Your task to perform on an android device: check android version Image 0: 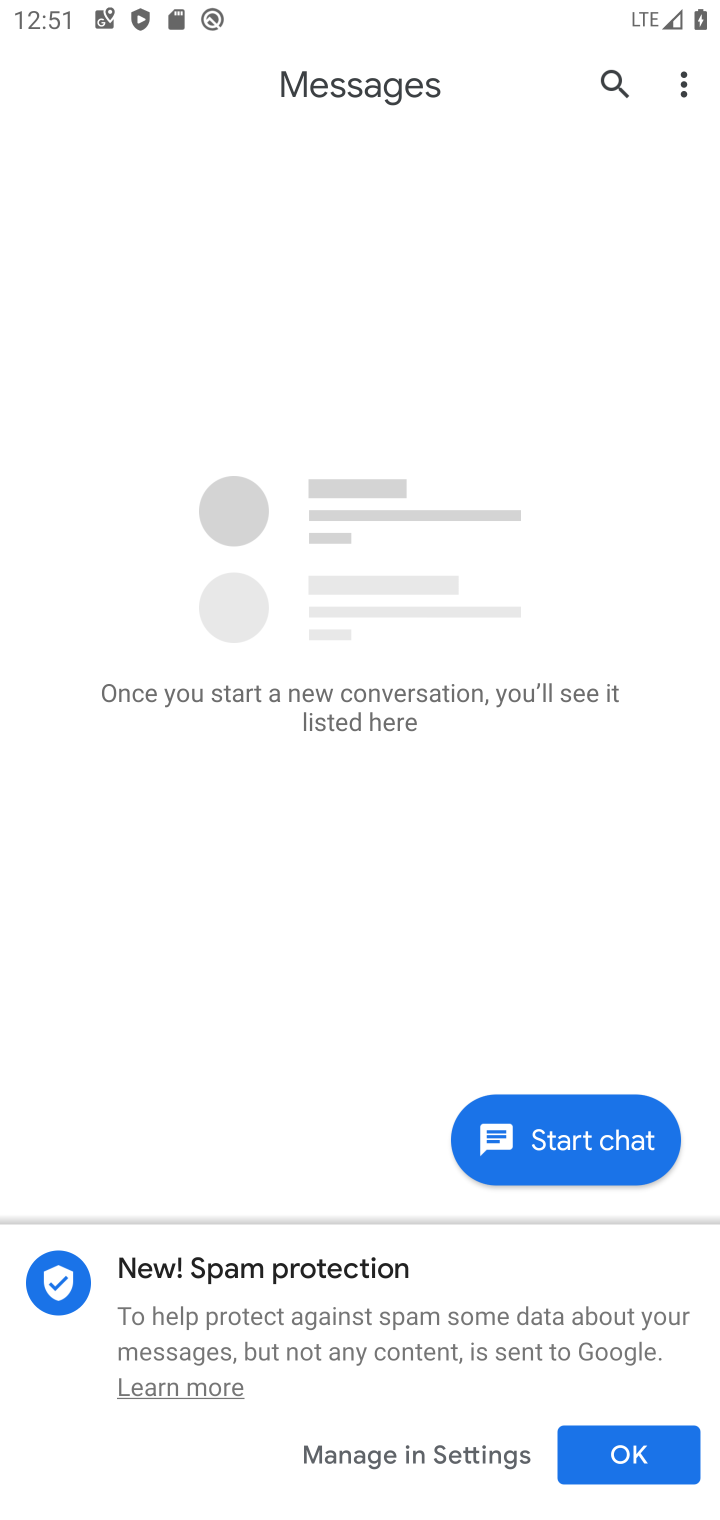
Step 0: press back button
Your task to perform on an android device: check android version Image 1: 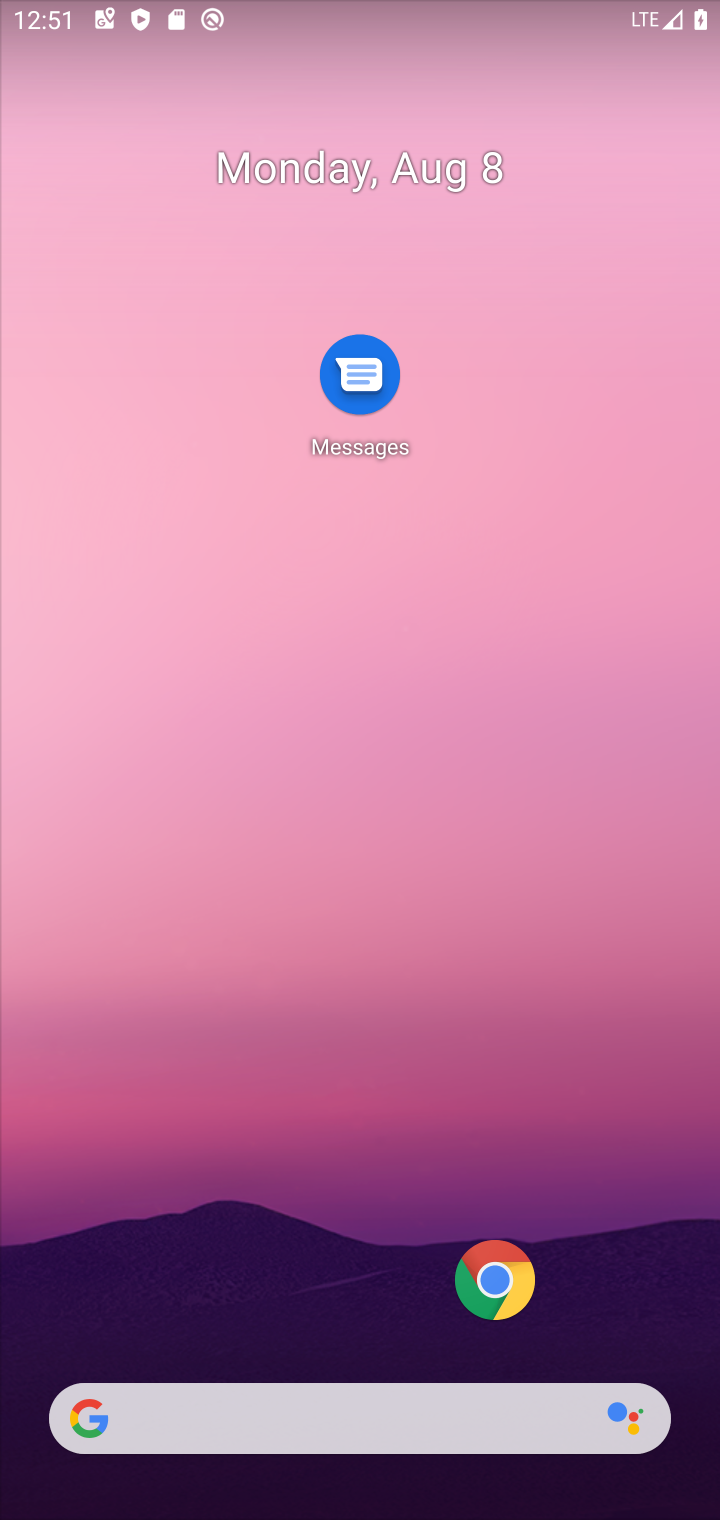
Step 1: drag from (280, 1224) to (381, 213)
Your task to perform on an android device: check android version Image 2: 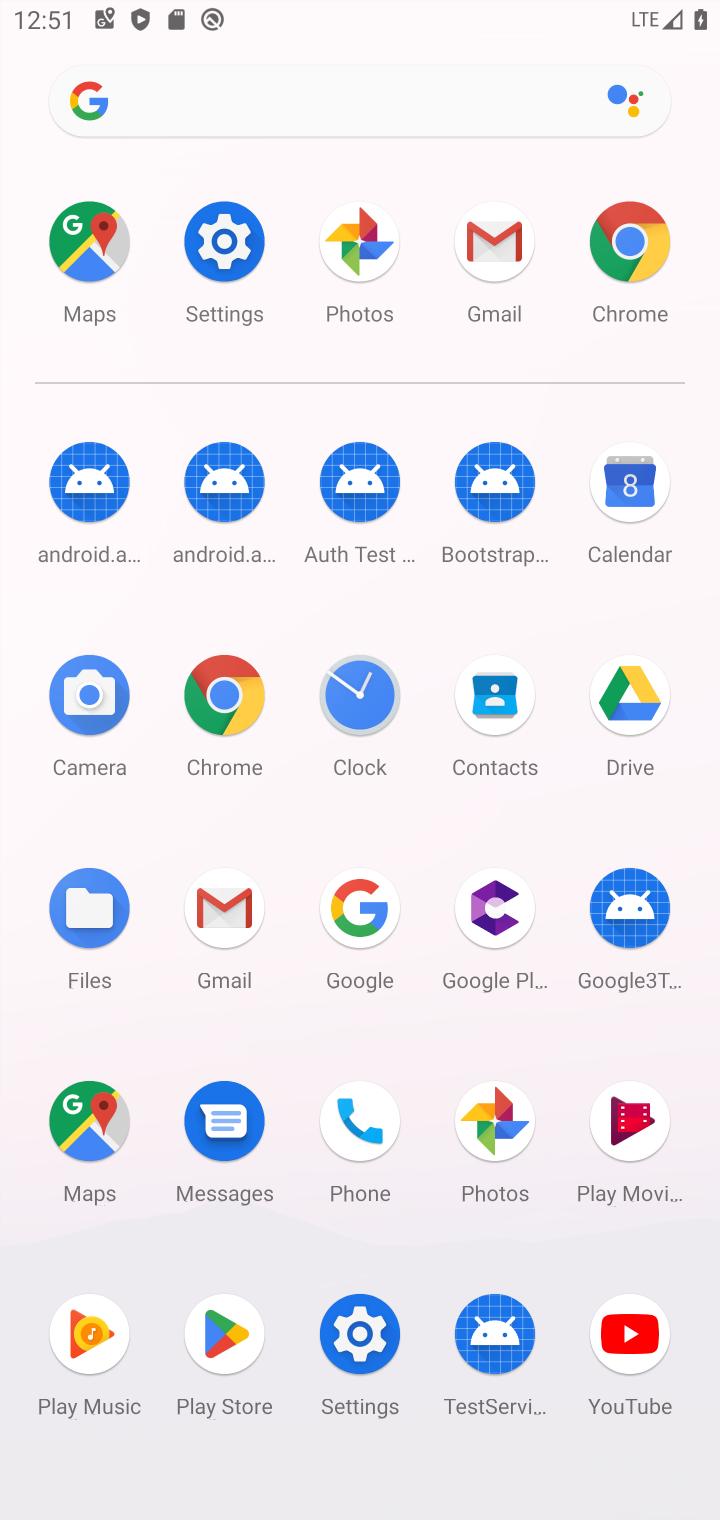
Step 2: click (225, 263)
Your task to perform on an android device: check android version Image 3: 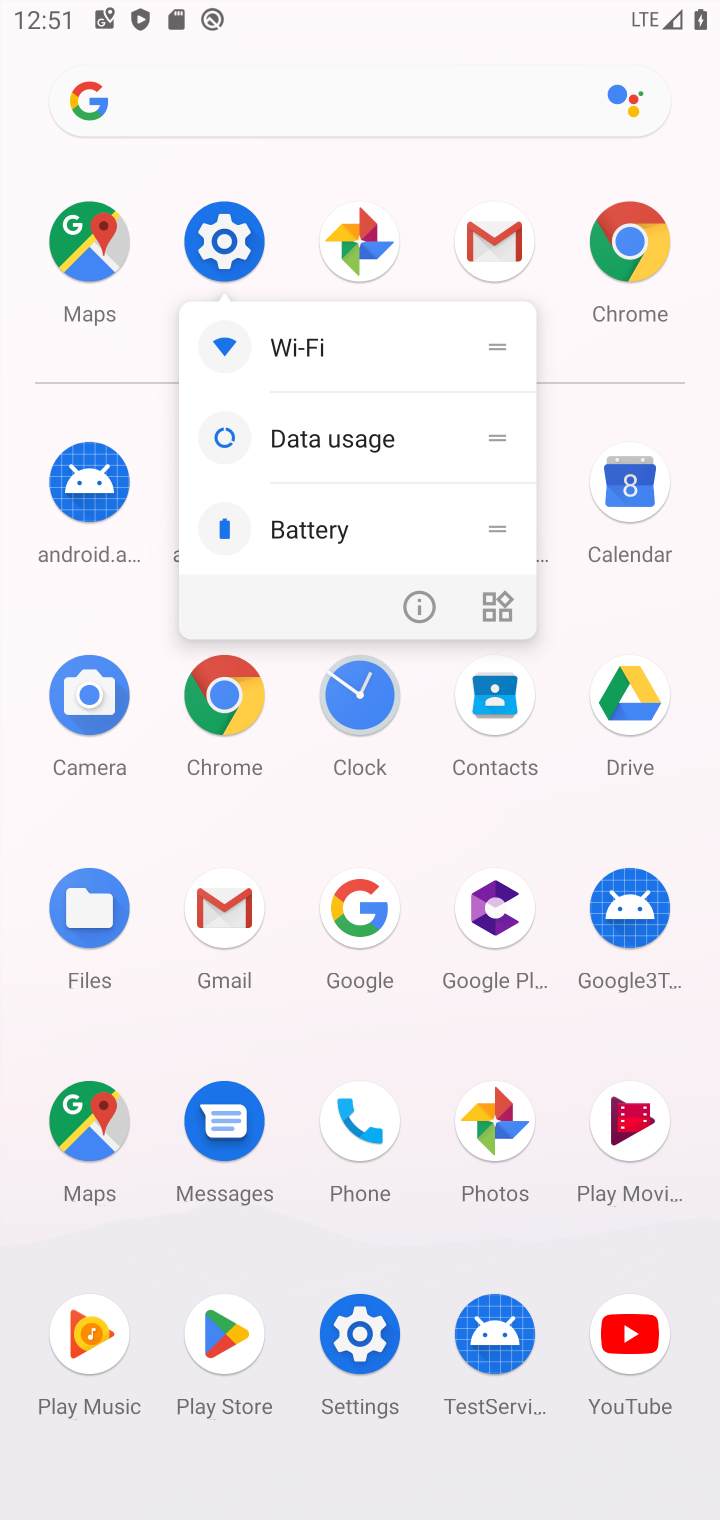
Step 3: click (225, 263)
Your task to perform on an android device: check android version Image 4: 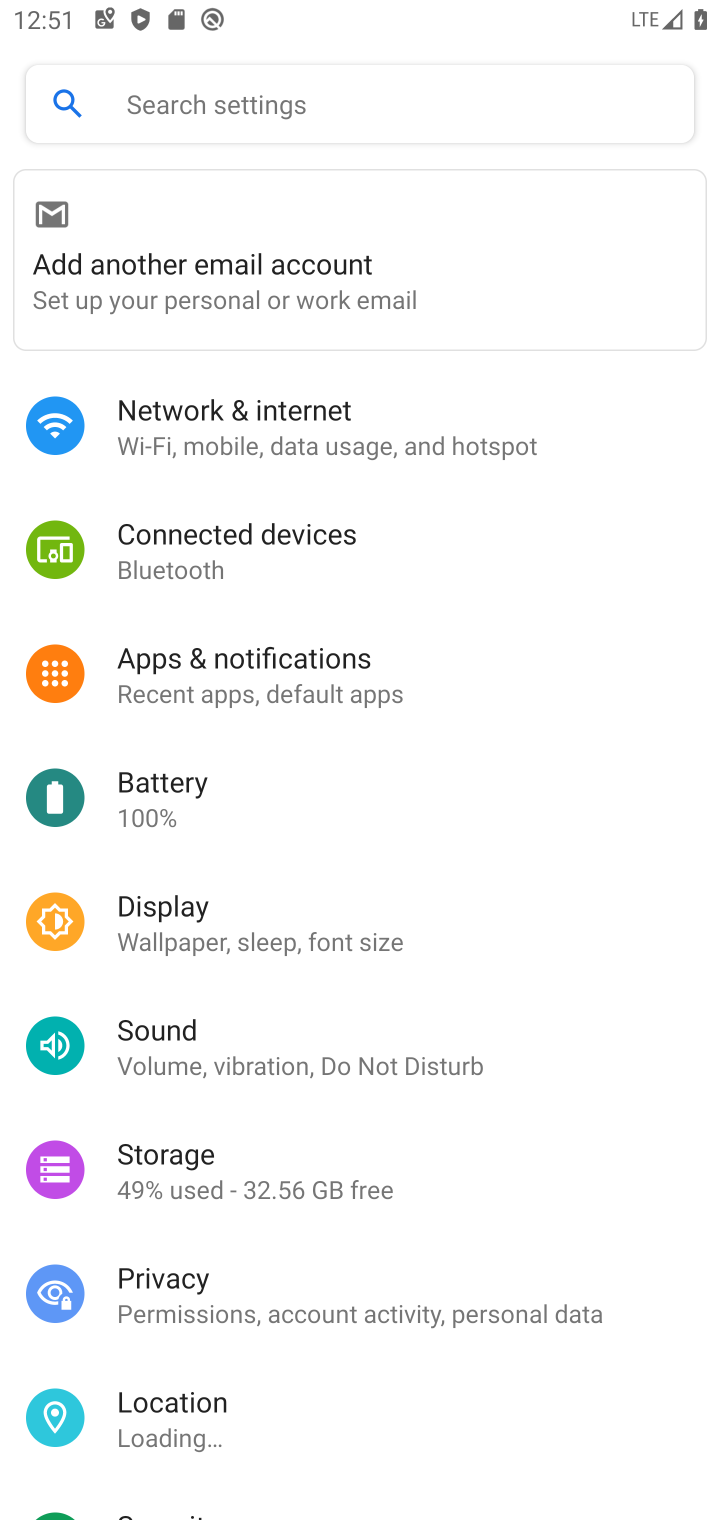
Step 4: drag from (369, 1465) to (483, 72)
Your task to perform on an android device: check android version Image 5: 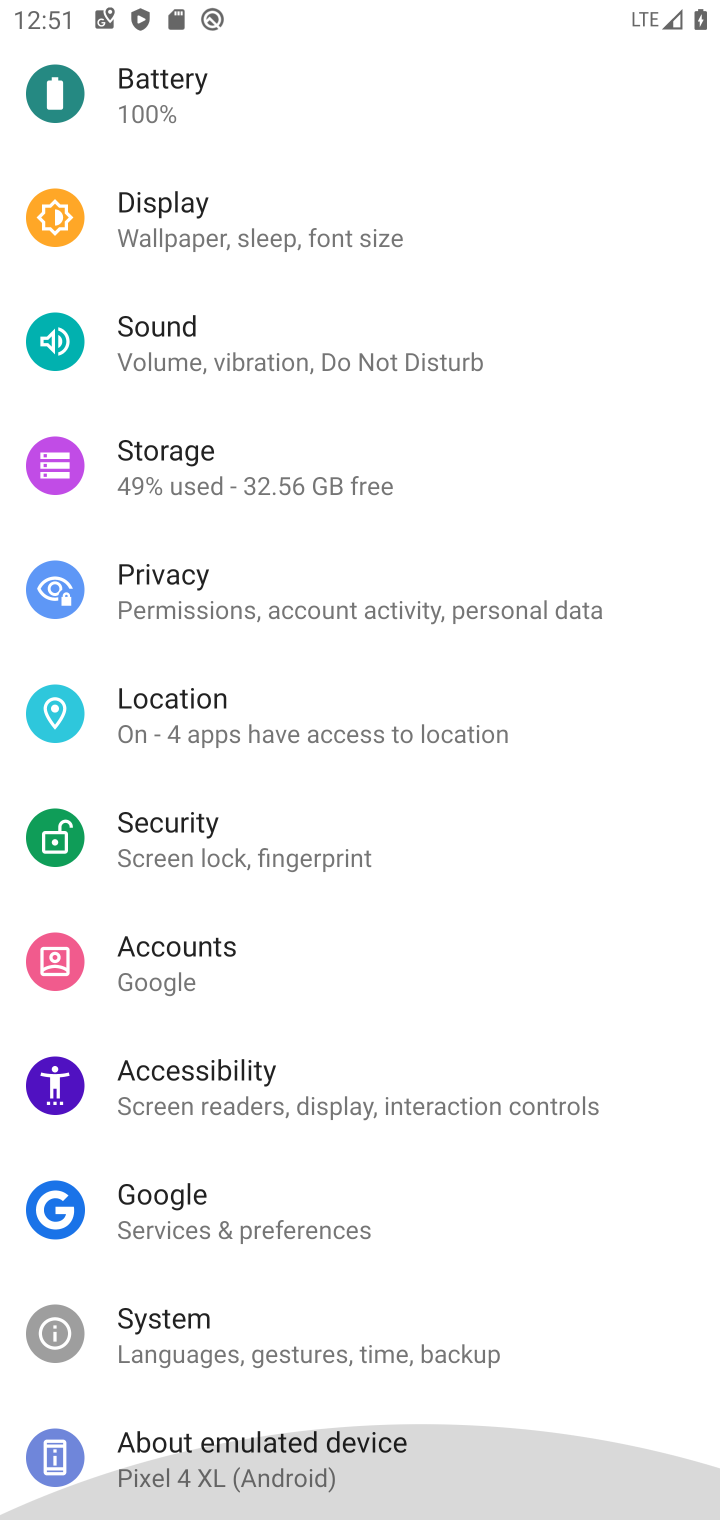
Step 5: drag from (500, 496) to (523, 18)
Your task to perform on an android device: check android version Image 6: 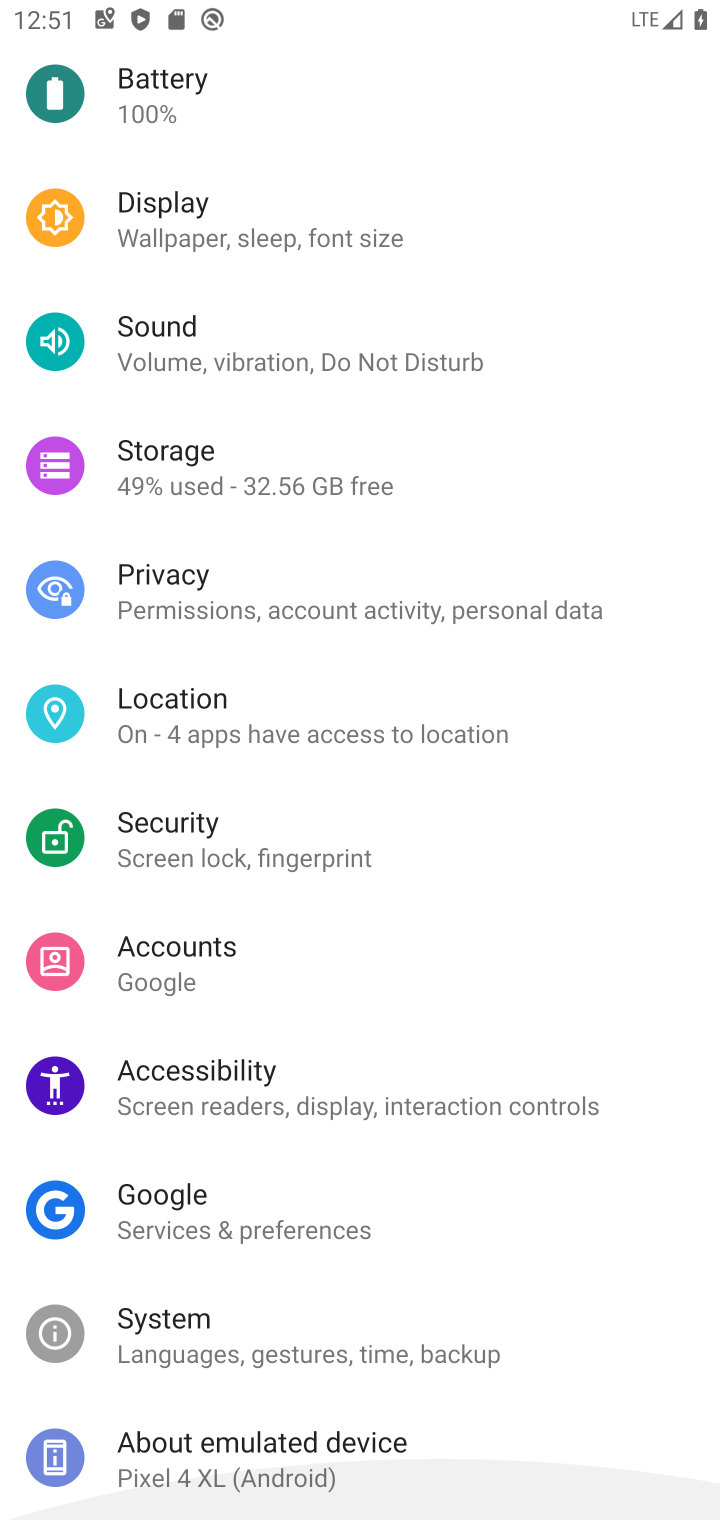
Step 6: drag from (339, 1290) to (526, 44)
Your task to perform on an android device: check android version Image 7: 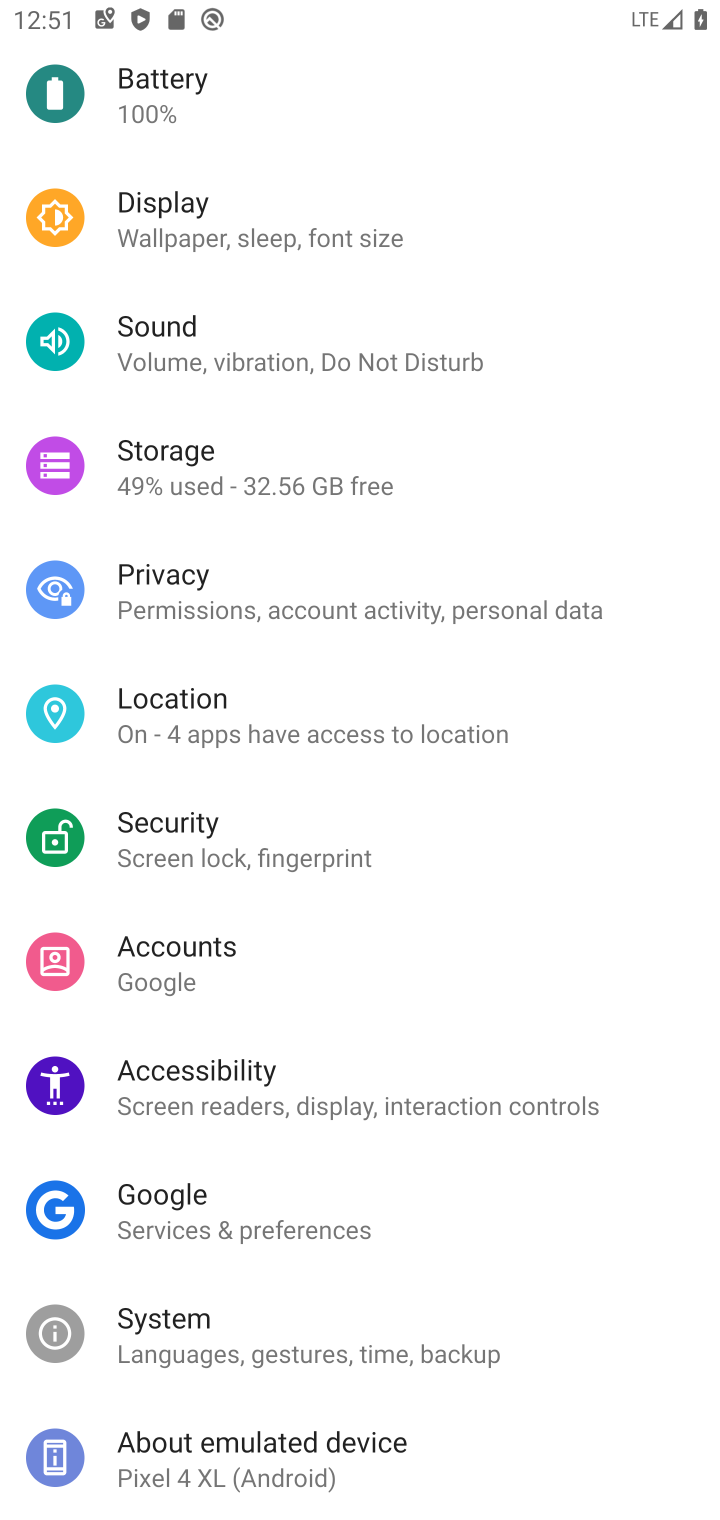
Step 7: click (340, 1458)
Your task to perform on an android device: check android version Image 8: 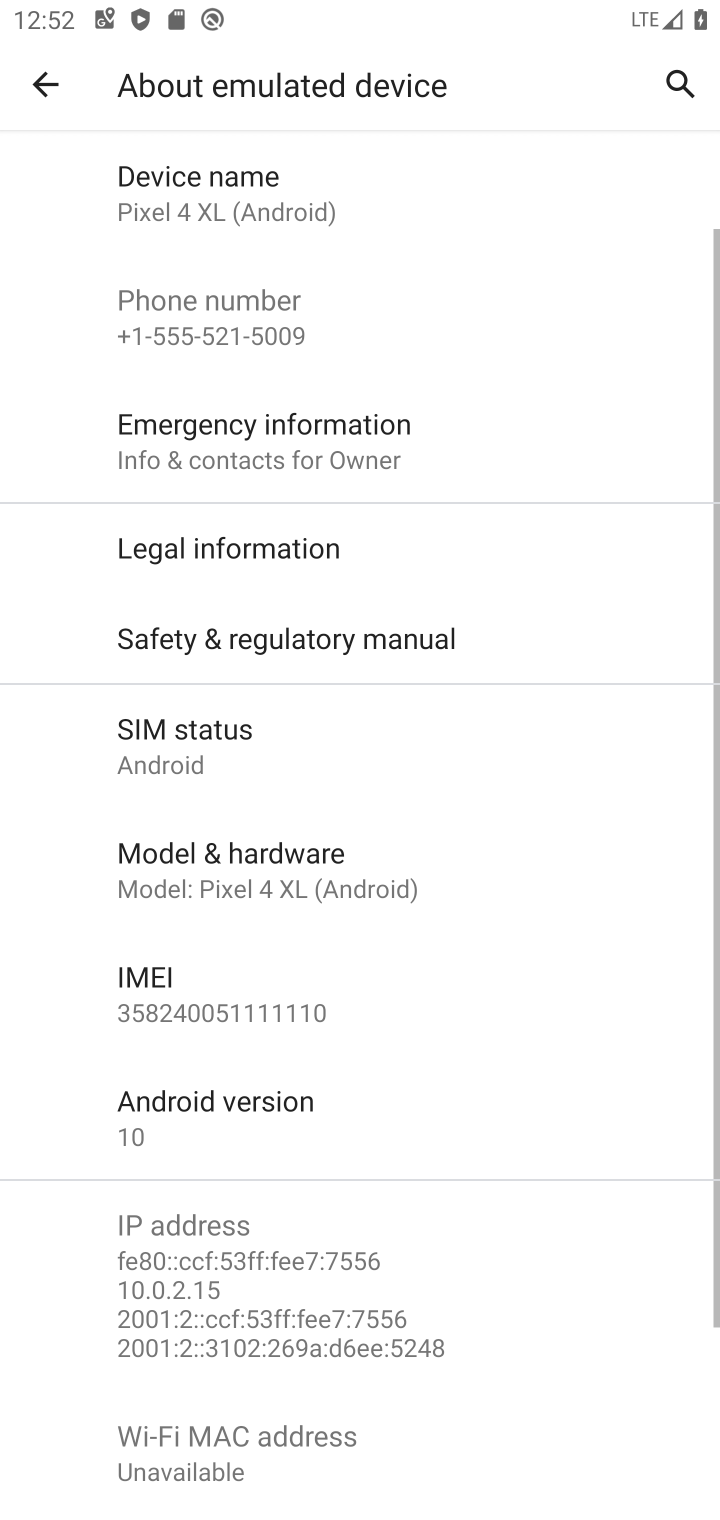
Step 8: drag from (357, 1230) to (513, 49)
Your task to perform on an android device: check android version Image 9: 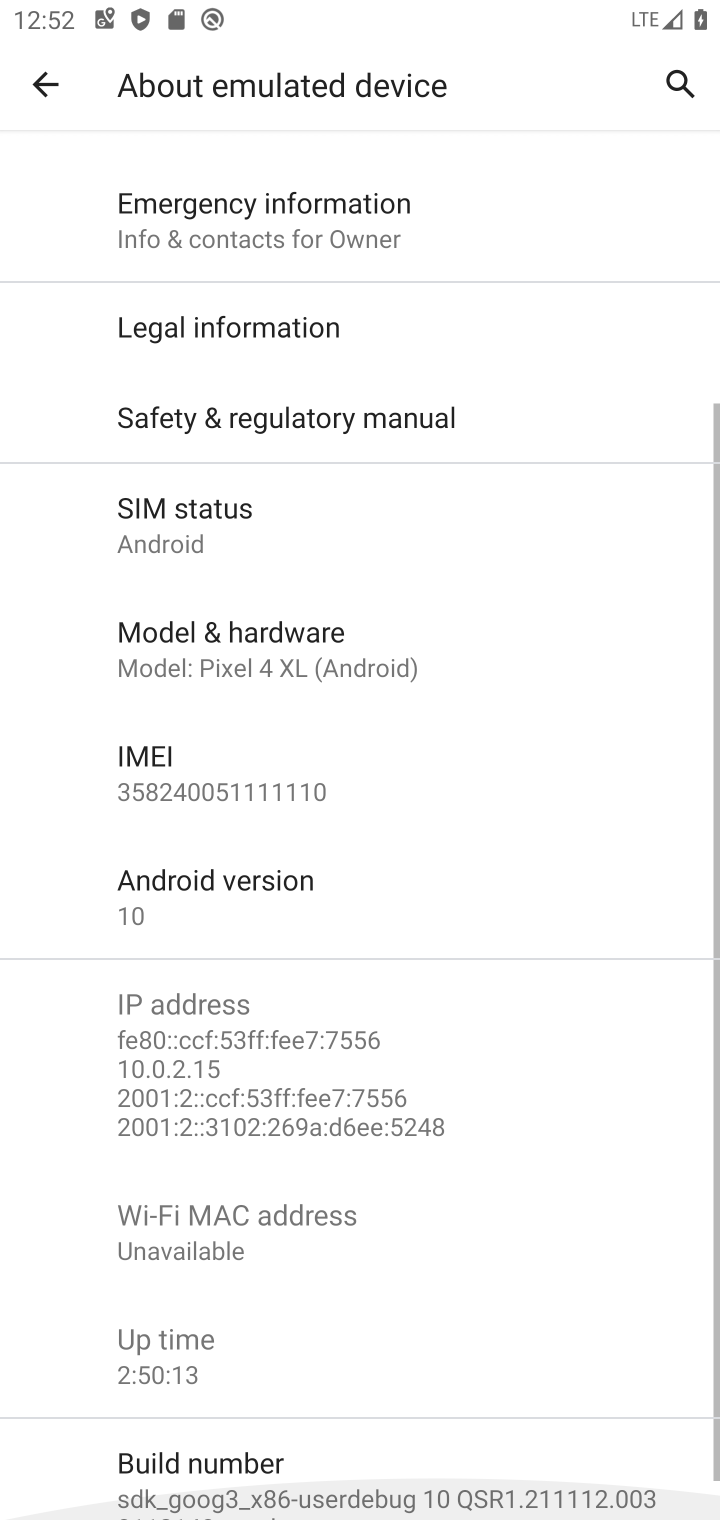
Step 9: click (231, 828)
Your task to perform on an android device: check android version Image 10: 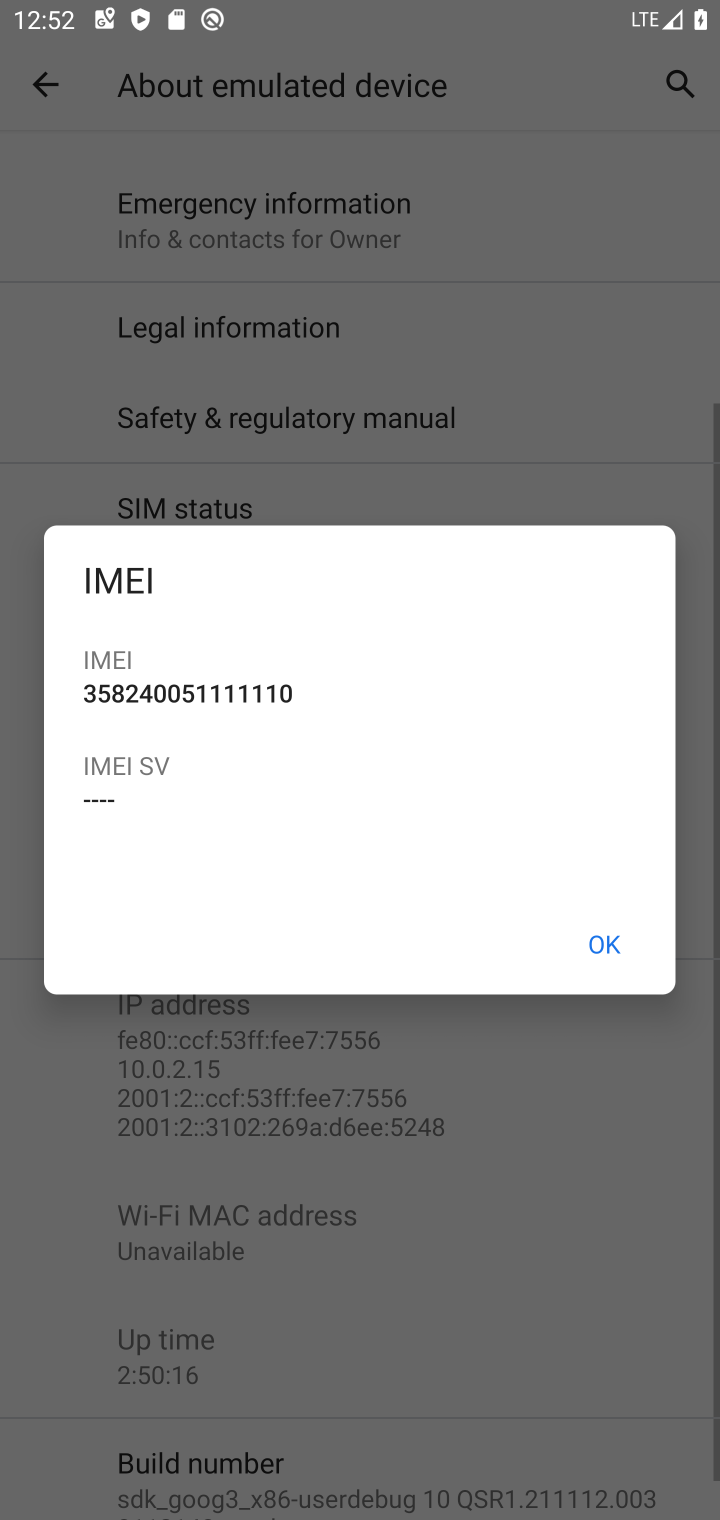
Step 10: click (29, 76)
Your task to perform on an android device: check android version Image 11: 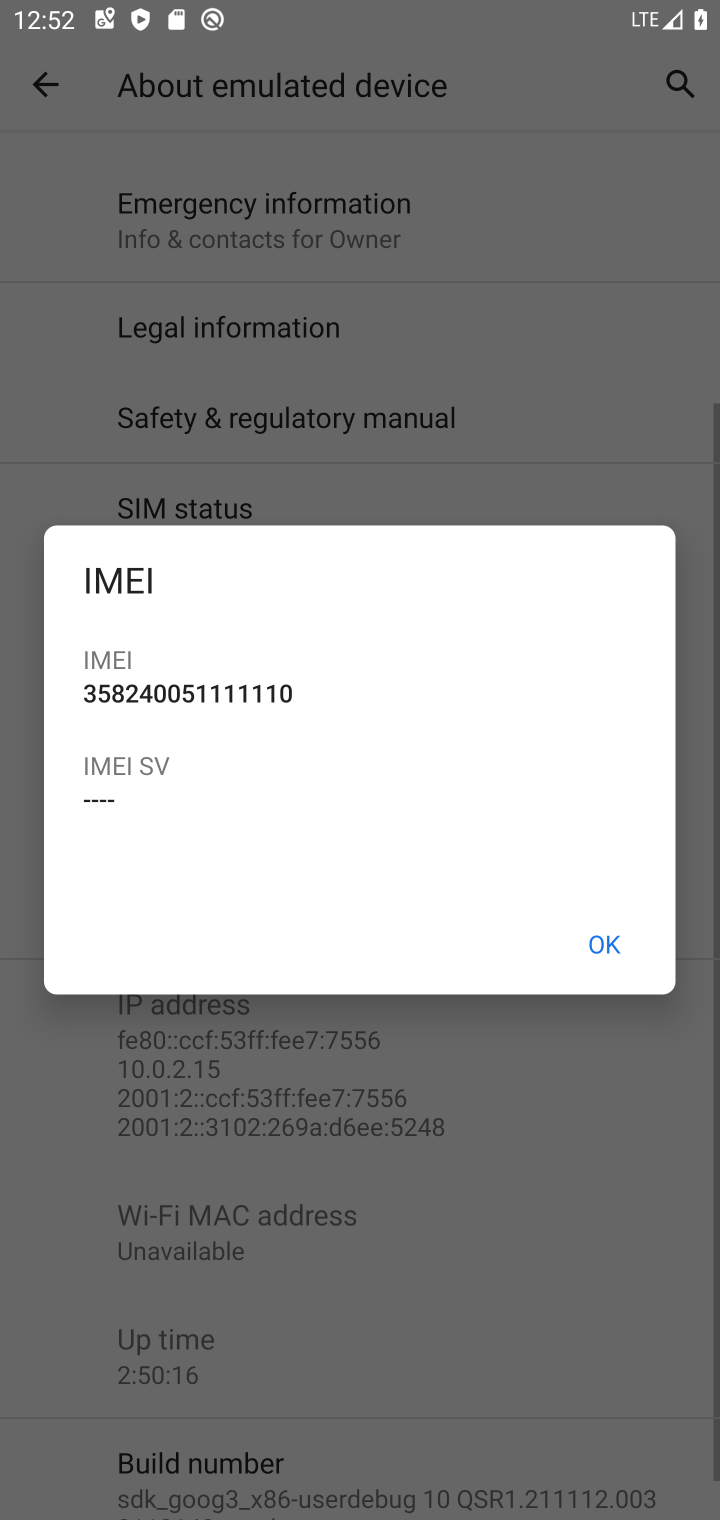
Step 11: click (582, 928)
Your task to perform on an android device: check android version Image 12: 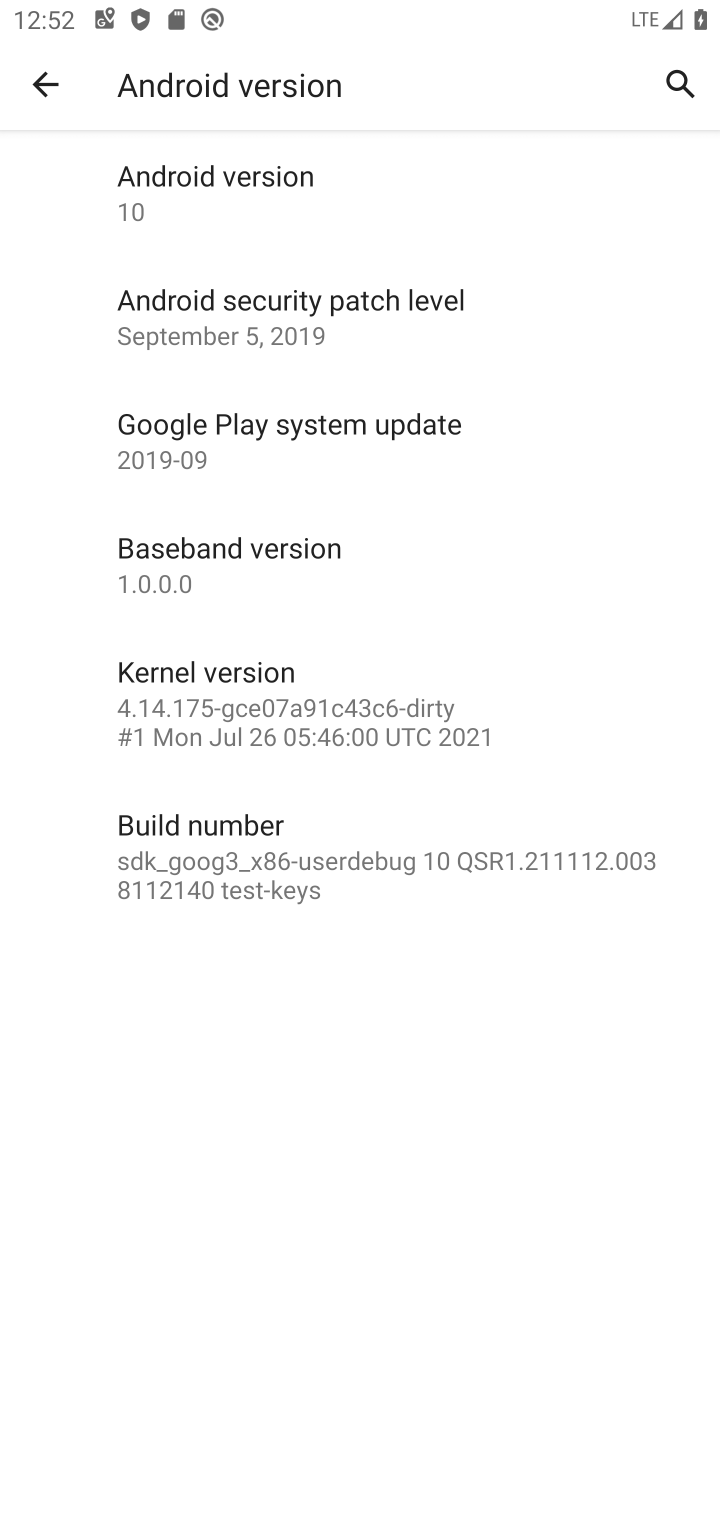
Step 12: task complete